Your task to perform on an android device: show emergency info Image 0: 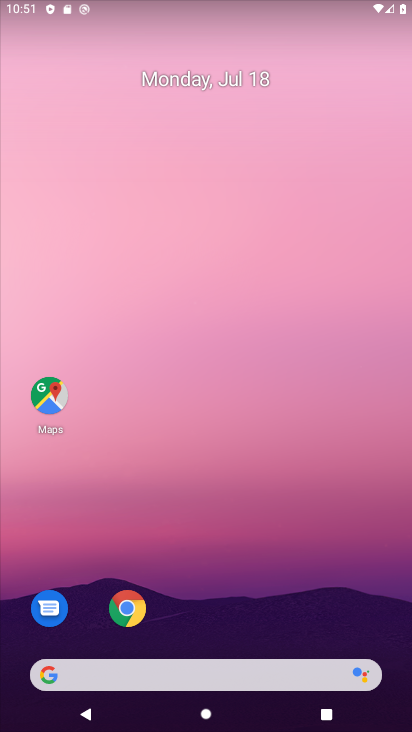
Step 0: drag from (294, 620) to (327, 100)
Your task to perform on an android device: show emergency info Image 1: 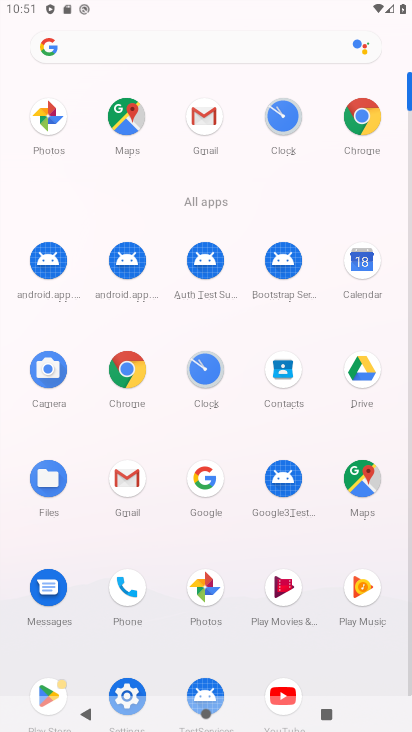
Step 1: click (125, 685)
Your task to perform on an android device: show emergency info Image 2: 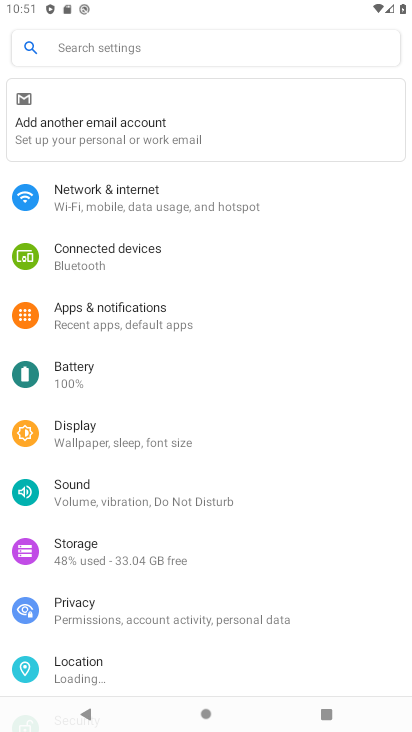
Step 2: drag from (160, 579) to (238, 97)
Your task to perform on an android device: show emergency info Image 3: 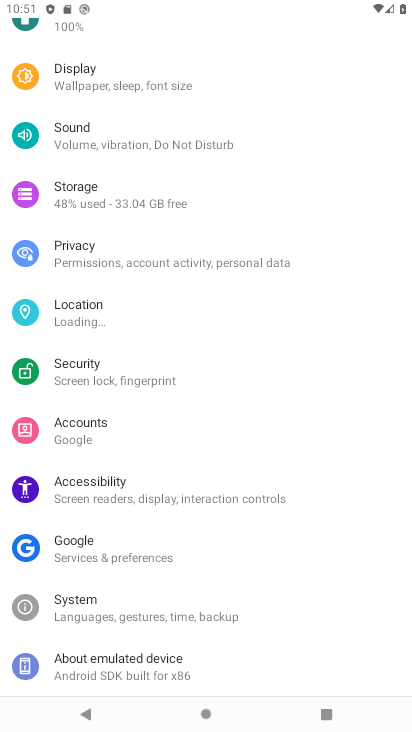
Step 3: drag from (191, 634) to (276, 158)
Your task to perform on an android device: show emergency info Image 4: 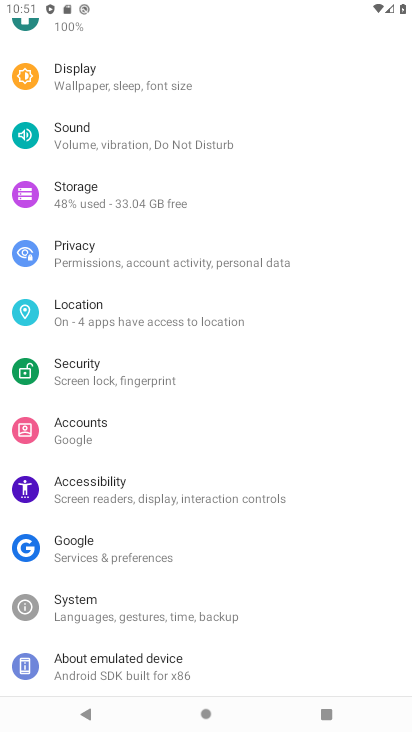
Step 4: click (189, 660)
Your task to perform on an android device: show emergency info Image 5: 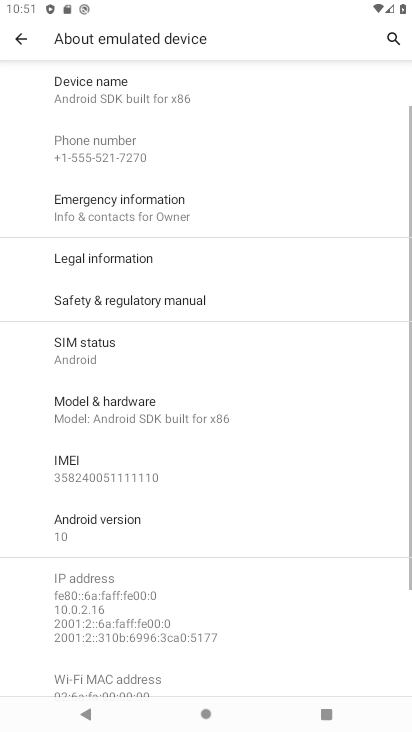
Step 5: task complete